Your task to perform on an android device: Show me popular games on the Play Store Image 0: 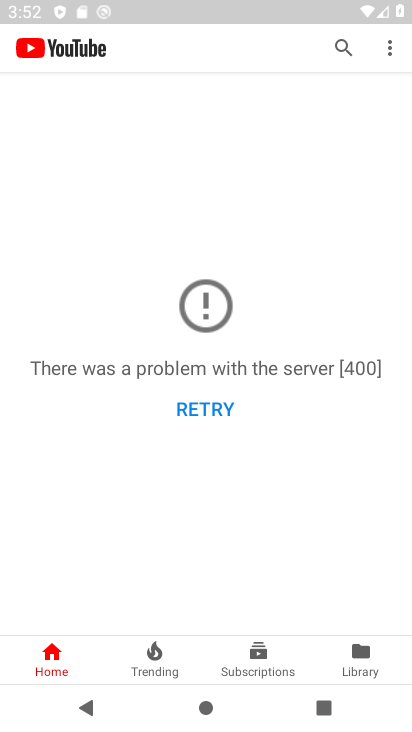
Step 0: press home button
Your task to perform on an android device: Show me popular games on the Play Store Image 1: 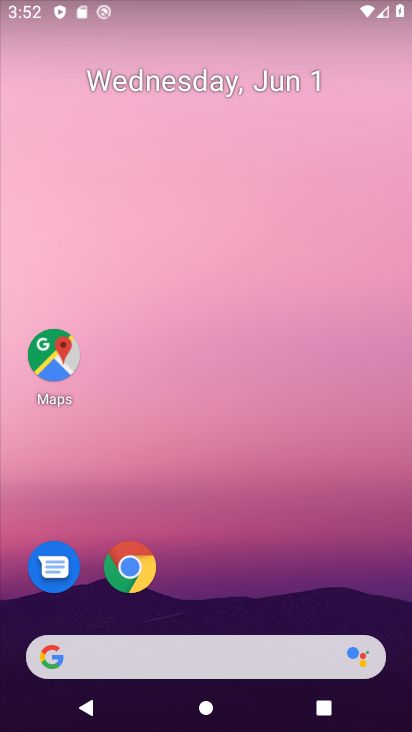
Step 1: drag from (149, 644) to (241, 80)
Your task to perform on an android device: Show me popular games on the Play Store Image 2: 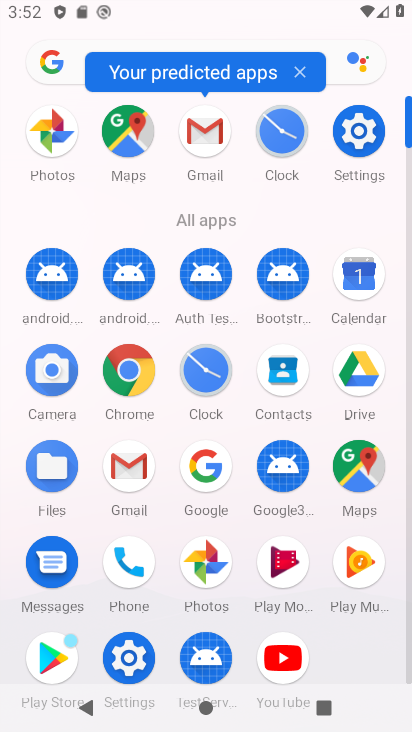
Step 2: click (72, 651)
Your task to perform on an android device: Show me popular games on the Play Store Image 3: 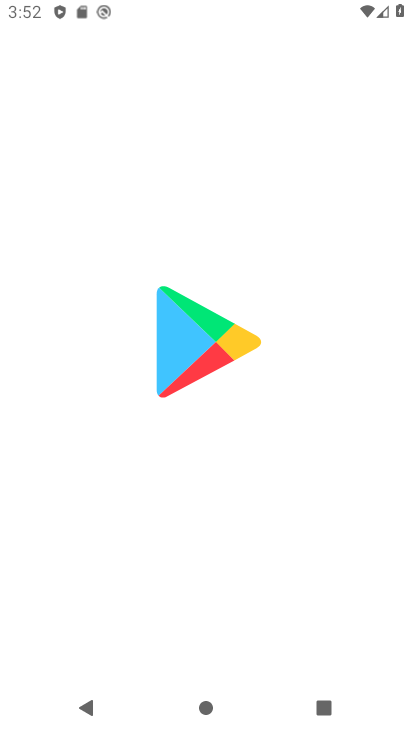
Step 3: click (62, 652)
Your task to perform on an android device: Show me popular games on the Play Store Image 4: 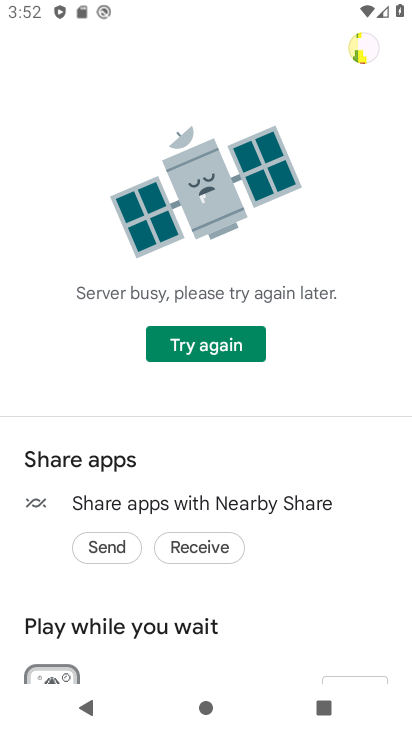
Step 4: task complete